Your task to perform on an android device: toggle location history Image 0: 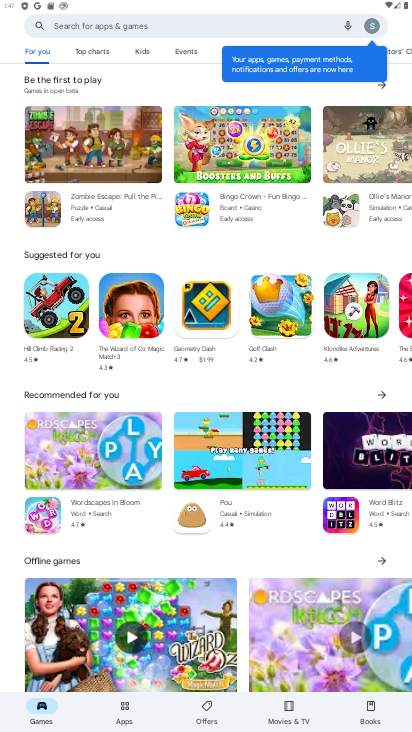
Step 0: press home button
Your task to perform on an android device: toggle location history Image 1: 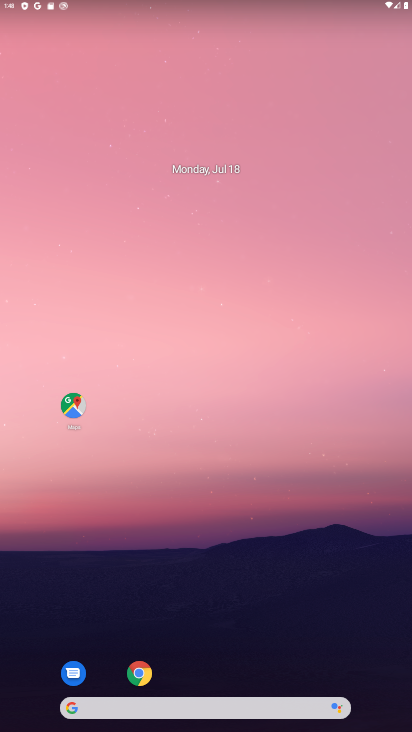
Step 1: drag from (194, 703) to (199, 169)
Your task to perform on an android device: toggle location history Image 2: 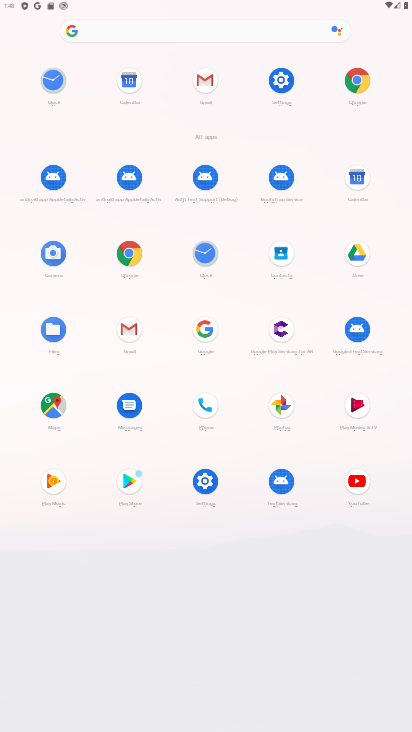
Step 2: click (281, 79)
Your task to perform on an android device: toggle location history Image 3: 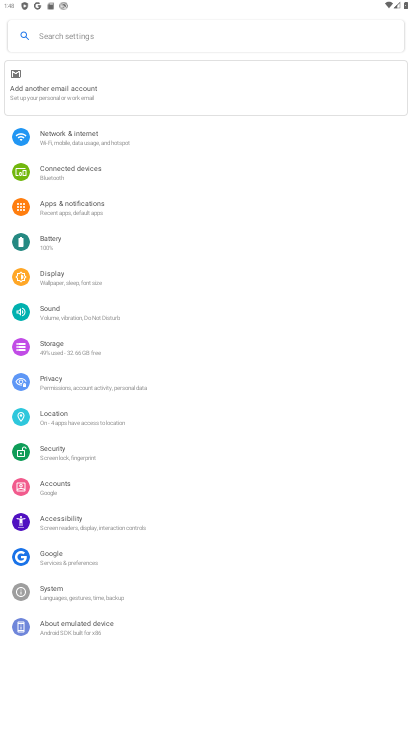
Step 3: click (65, 419)
Your task to perform on an android device: toggle location history Image 4: 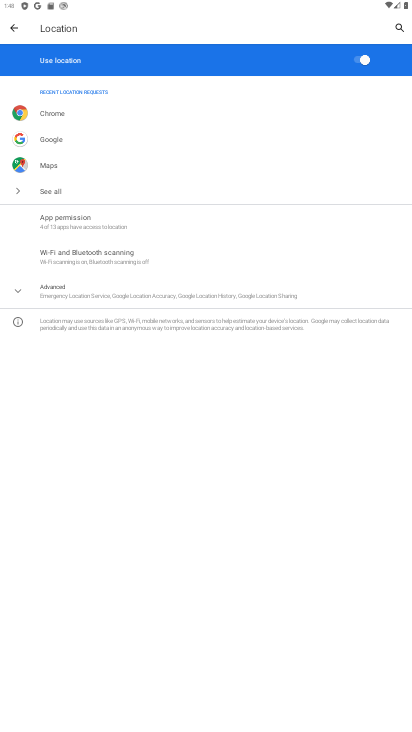
Step 4: click (102, 294)
Your task to perform on an android device: toggle location history Image 5: 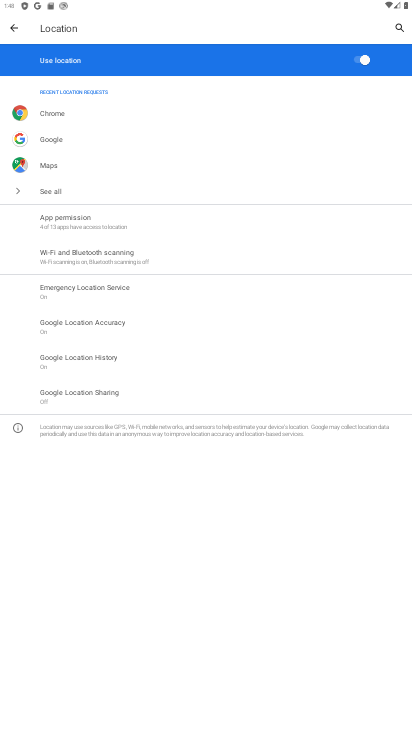
Step 5: click (112, 361)
Your task to perform on an android device: toggle location history Image 6: 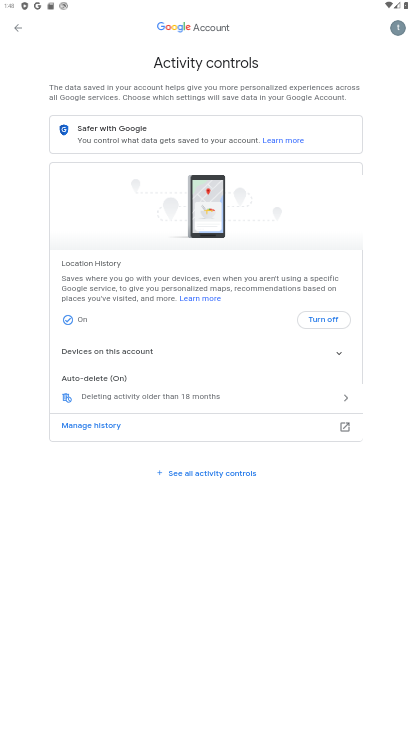
Step 6: click (321, 321)
Your task to perform on an android device: toggle location history Image 7: 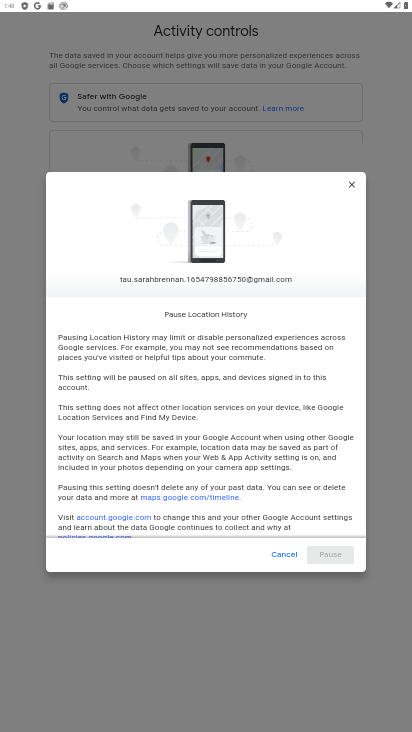
Step 7: drag from (258, 458) to (303, 318)
Your task to perform on an android device: toggle location history Image 8: 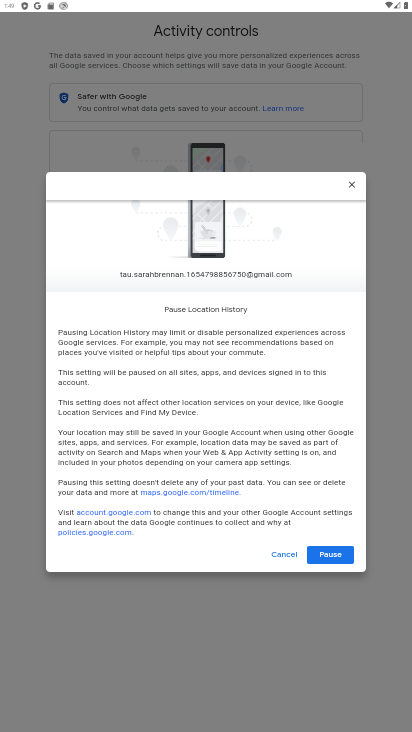
Step 8: click (334, 559)
Your task to perform on an android device: toggle location history Image 9: 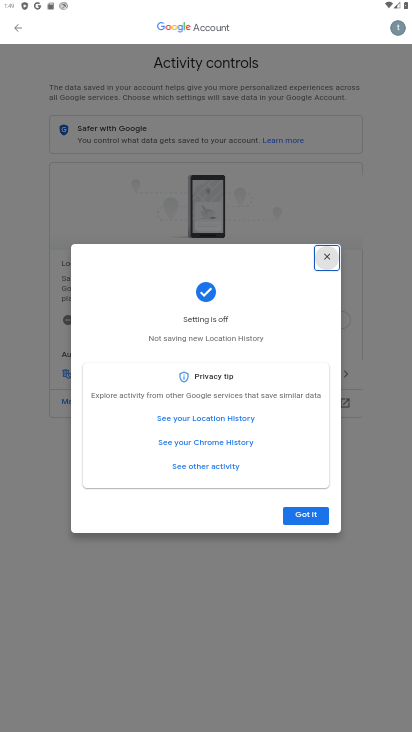
Step 9: click (301, 517)
Your task to perform on an android device: toggle location history Image 10: 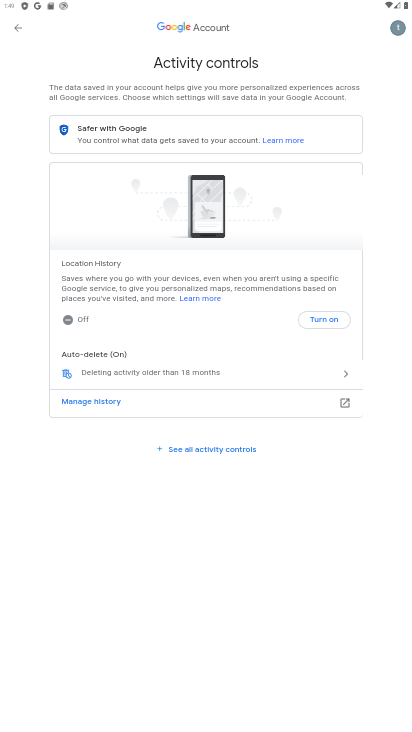
Step 10: task complete